Your task to perform on an android device: turn off improve location accuracy Image 0: 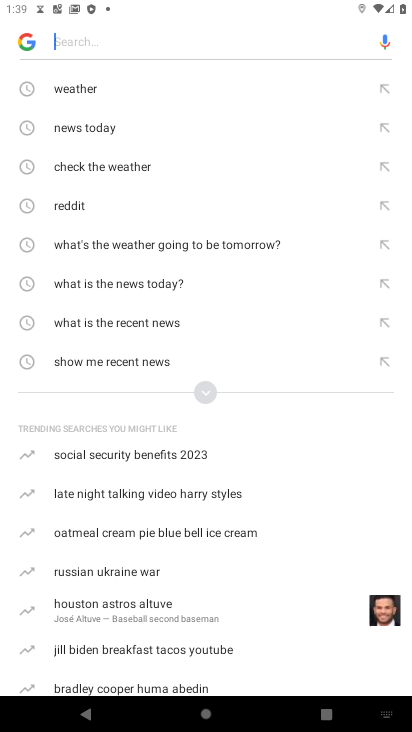
Step 0: press home button
Your task to perform on an android device: turn off improve location accuracy Image 1: 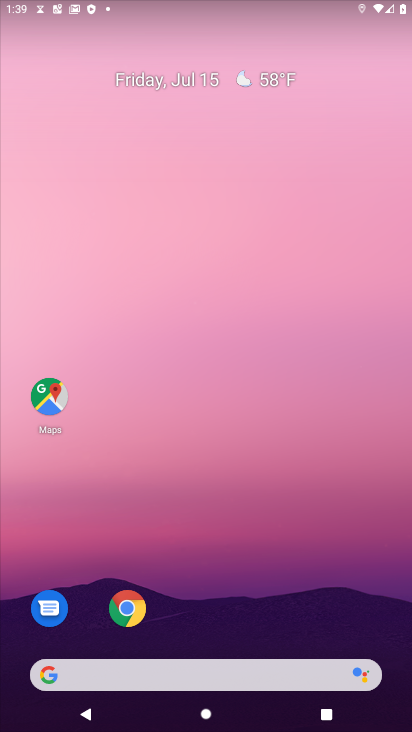
Step 1: drag from (295, 610) to (204, 101)
Your task to perform on an android device: turn off improve location accuracy Image 2: 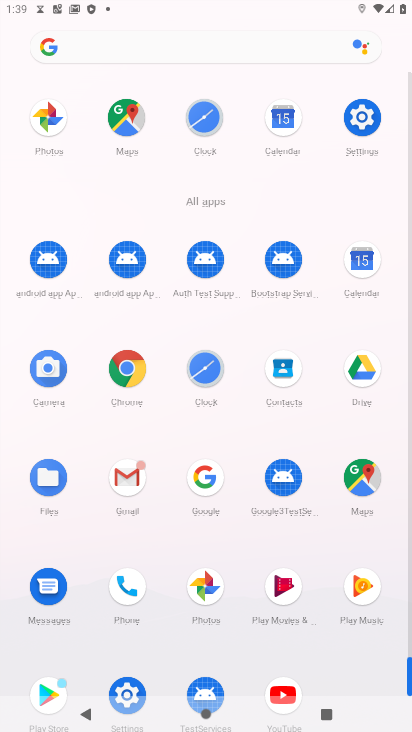
Step 2: click (121, 685)
Your task to perform on an android device: turn off improve location accuracy Image 3: 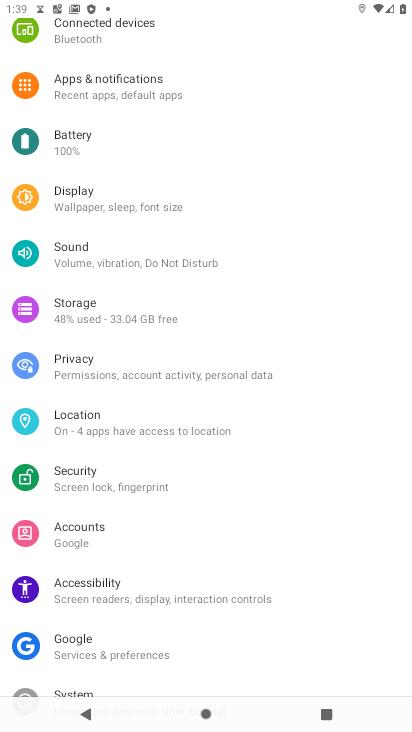
Step 3: click (105, 435)
Your task to perform on an android device: turn off improve location accuracy Image 4: 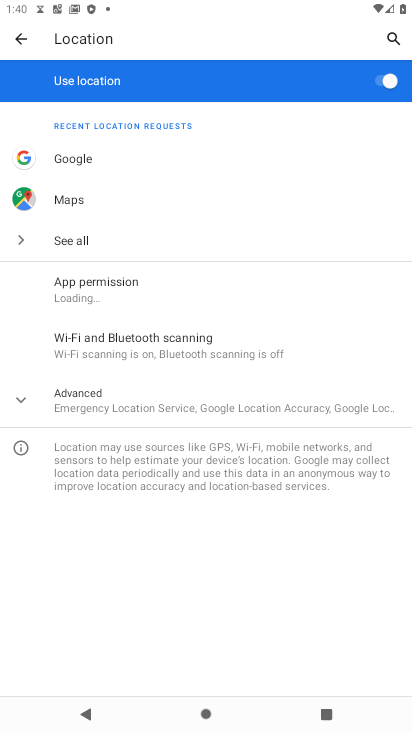
Step 4: click (95, 406)
Your task to perform on an android device: turn off improve location accuracy Image 5: 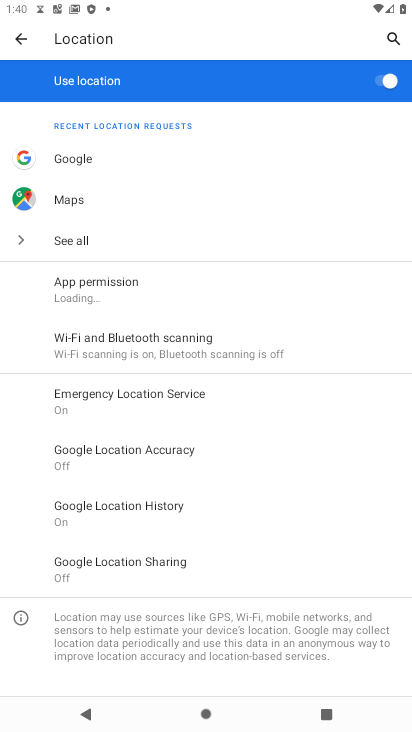
Step 5: click (158, 454)
Your task to perform on an android device: turn off improve location accuracy Image 6: 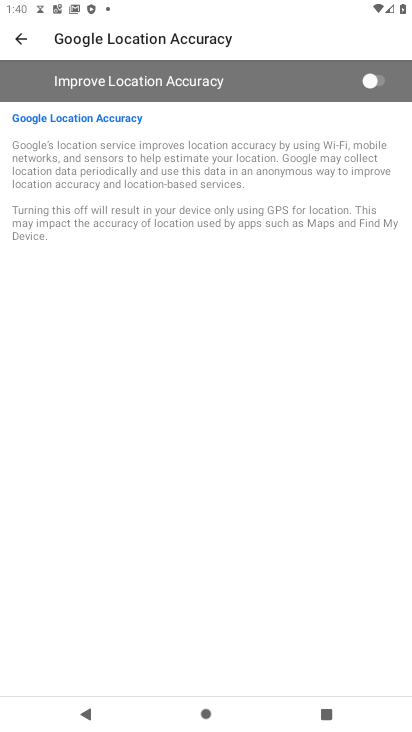
Step 6: task complete